Your task to perform on an android device: turn on improve location accuracy Image 0: 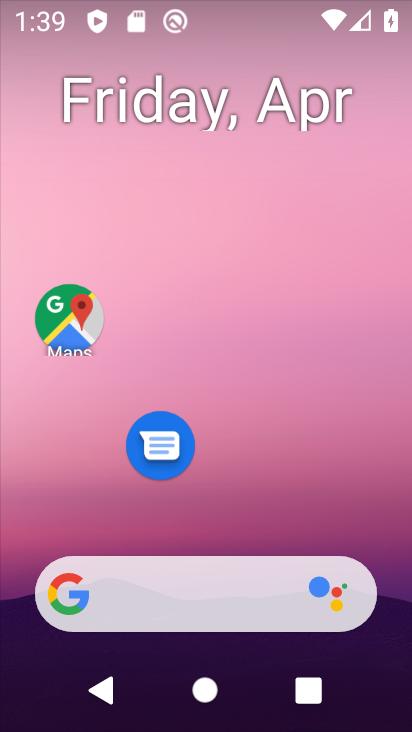
Step 0: drag from (269, 524) to (248, 183)
Your task to perform on an android device: turn on improve location accuracy Image 1: 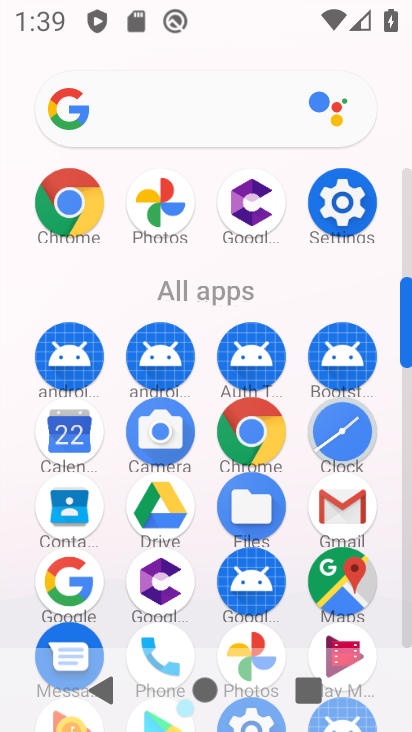
Step 1: click (345, 202)
Your task to perform on an android device: turn on improve location accuracy Image 2: 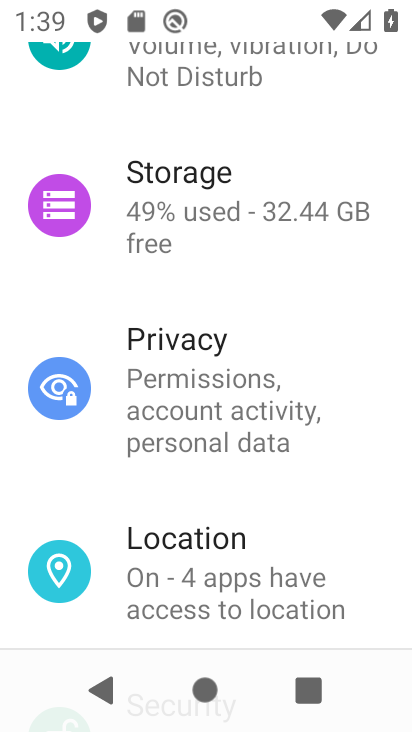
Step 2: click (220, 554)
Your task to perform on an android device: turn on improve location accuracy Image 3: 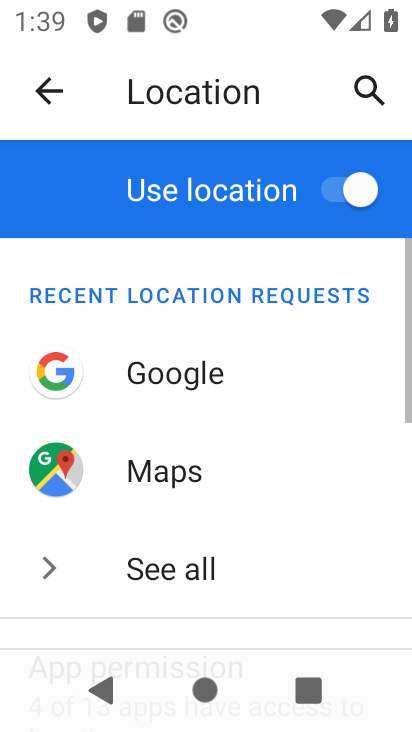
Step 3: drag from (220, 521) to (239, 292)
Your task to perform on an android device: turn on improve location accuracy Image 4: 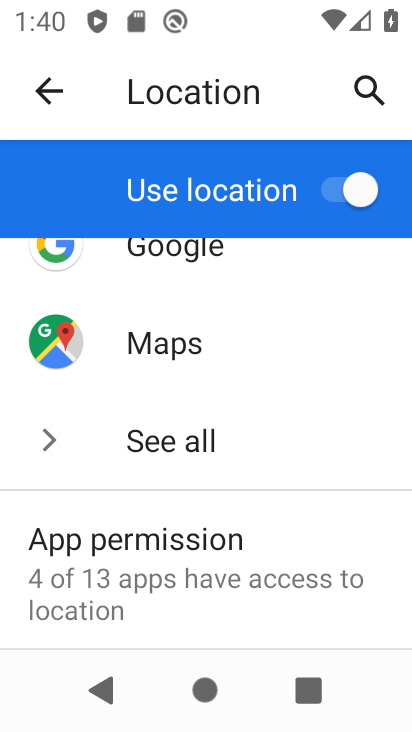
Step 4: drag from (105, 567) to (88, 254)
Your task to perform on an android device: turn on improve location accuracy Image 5: 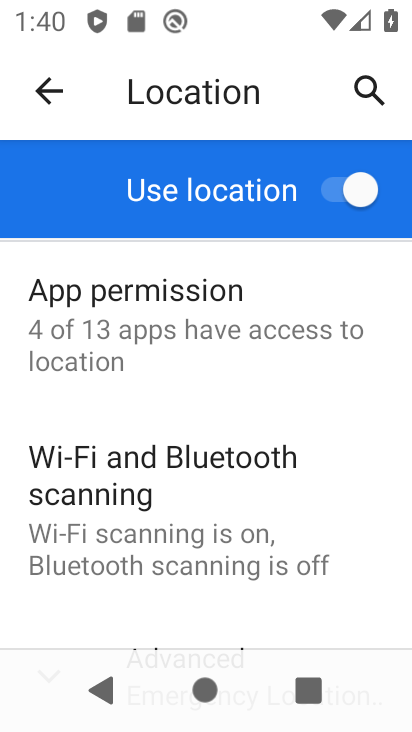
Step 5: drag from (123, 467) to (119, 253)
Your task to perform on an android device: turn on improve location accuracy Image 6: 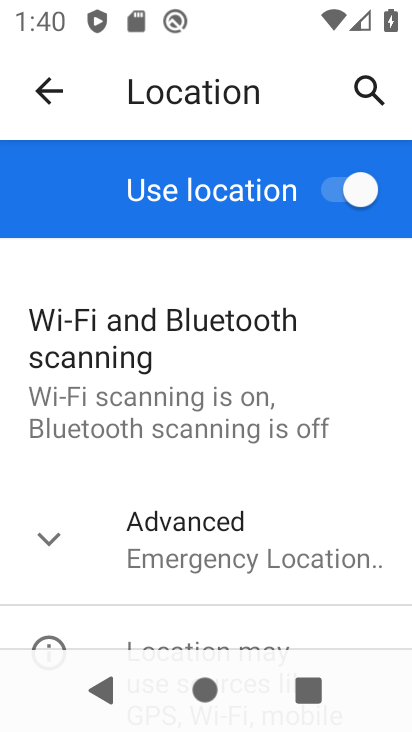
Step 6: click (167, 572)
Your task to perform on an android device: turn on improve location accuracy Image 7: 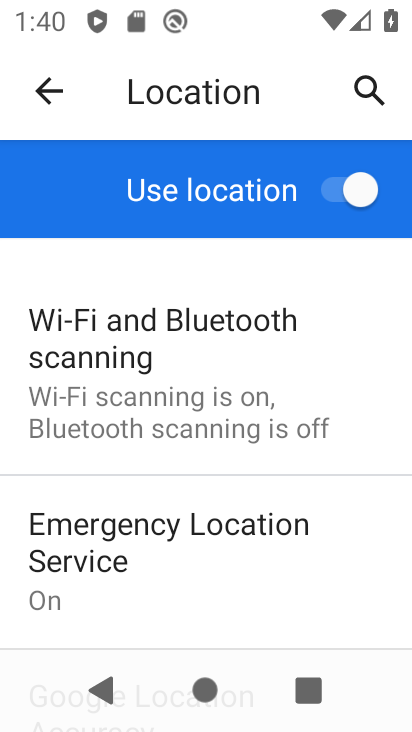
Step 7: drag from (167, 572) to (172, 390)
Your task to perform on an android device: turn on improve location accuracy Image 8: 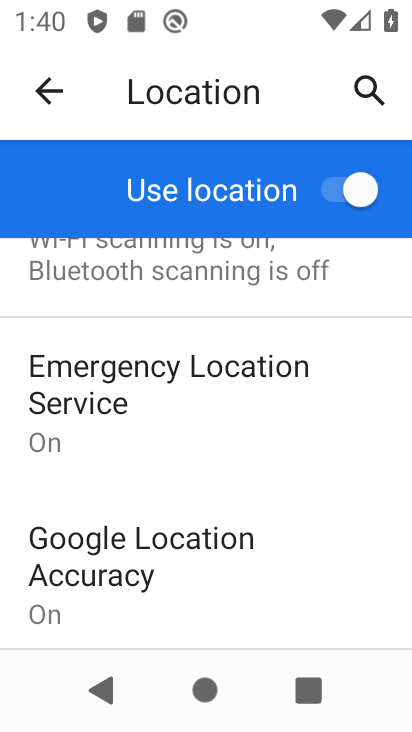
Step 8: click (131, 608)
Your task to perform on an android device: turn on improve location accuracy Image 9: 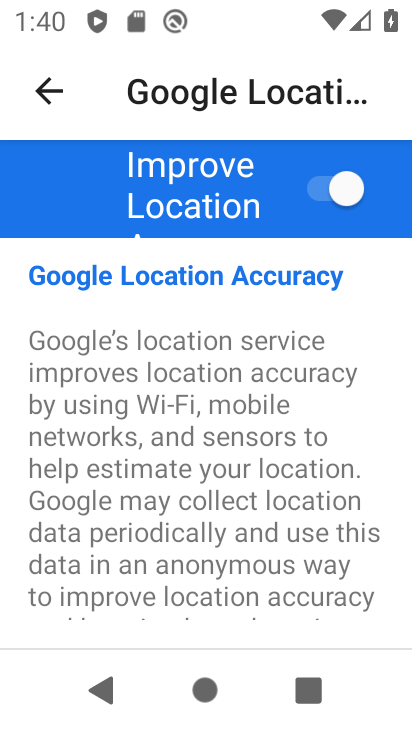
Step 9: task complete